Your task to perform on an android device: check battery use Image 0: 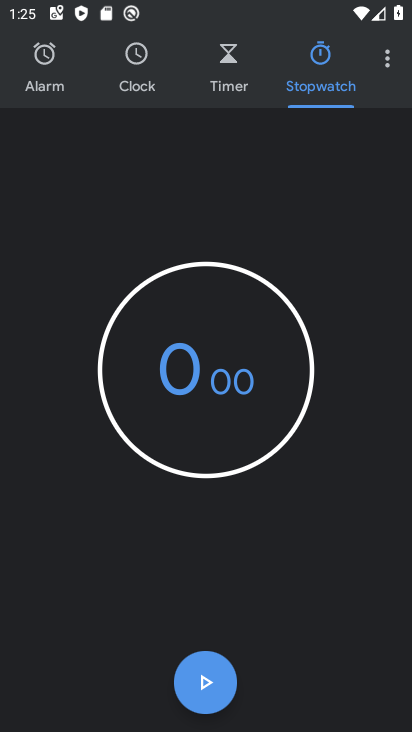
Step 0: press back button
Your task to perform on an android device: check battery use Image 1: 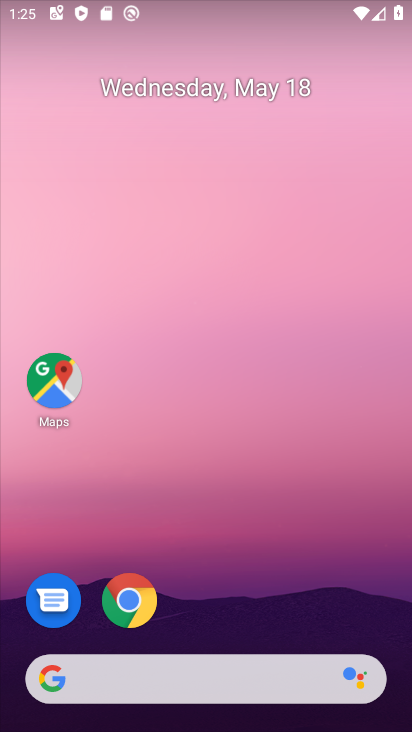
Step 1: drag from (278, 595) to (168, 197)
Your task to perform on an android device: check battery use Image 2: 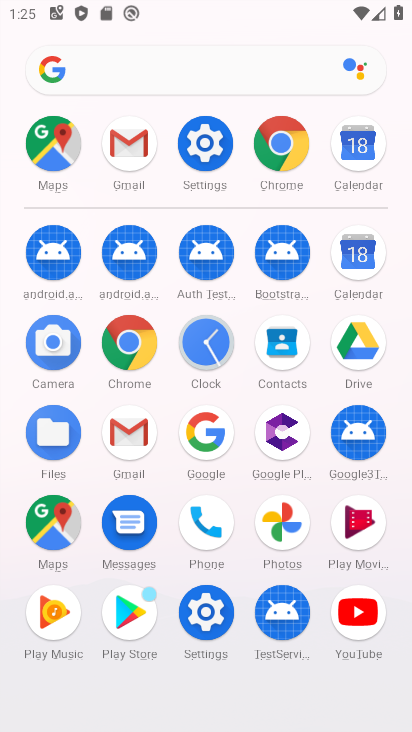
Step 2: click (204, 144)
Your task to perform on an android device: check battery use Image 3: 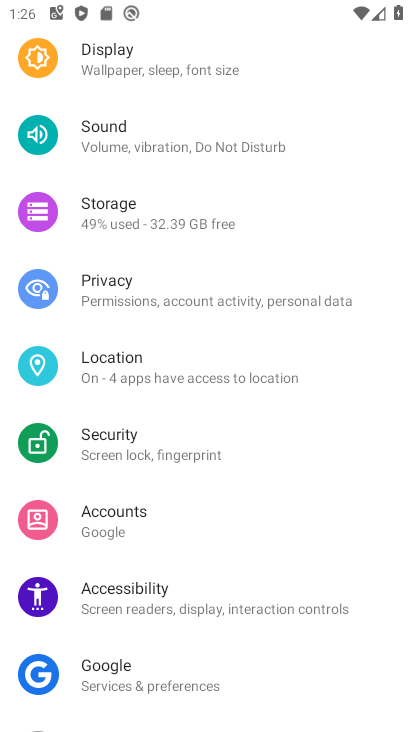
Step 3: drag from (197, 345) to (245, 420)
Your task to perform on an android device: check battery use Image 4: 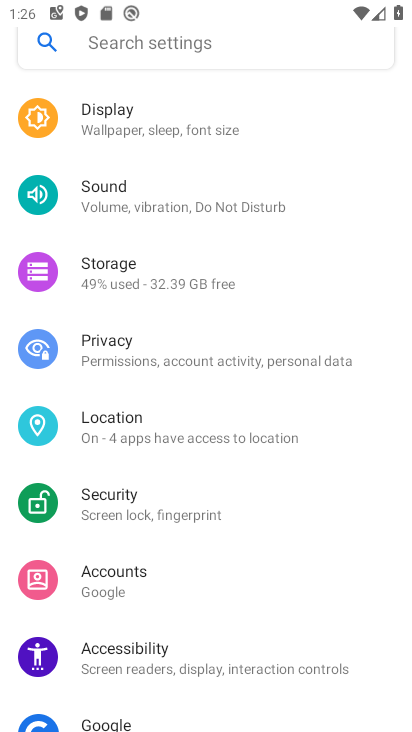
Step 4: drag from (204, 240) to (258, 406)
Your task to perform on an android device: check battery use Image 5: 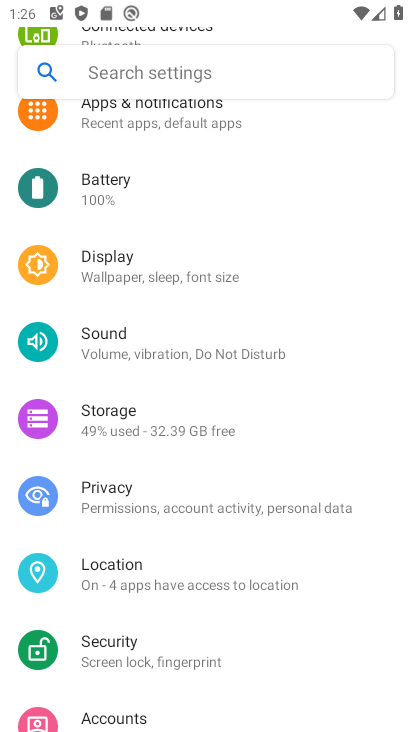
Step 5: click (117, 179)
Your task to perform on an android device: check battery use Image 6: 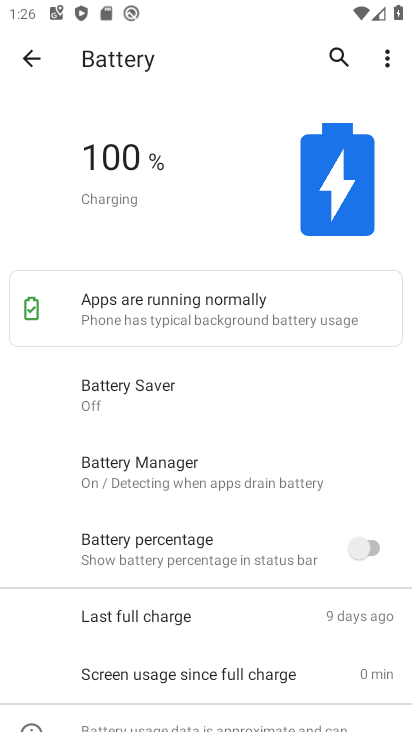
Step 6: click (387, 58)
Your task to perform on an android device: check battery use Image 7: 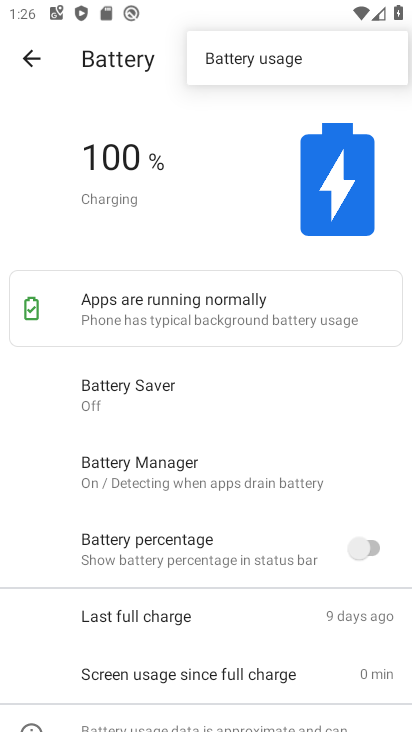
Step 7: click (270, 57)
Your task to perform on an android device: check battery use Image 8: 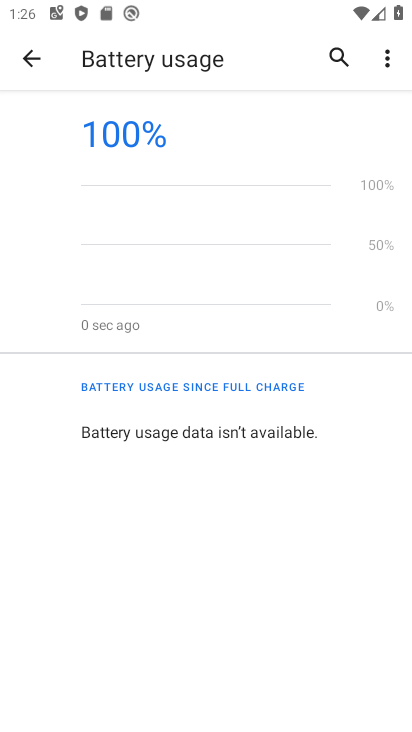
Step 8: task complete